Your task to perform on an android device: show emergency info Image 0: 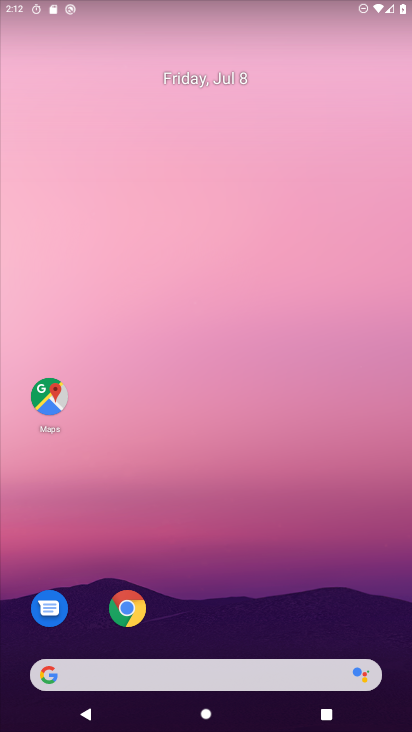
Step 0: drag from (241, 713) to (239, 661)
Your task to perform on an android device: show emergency info Image 1: 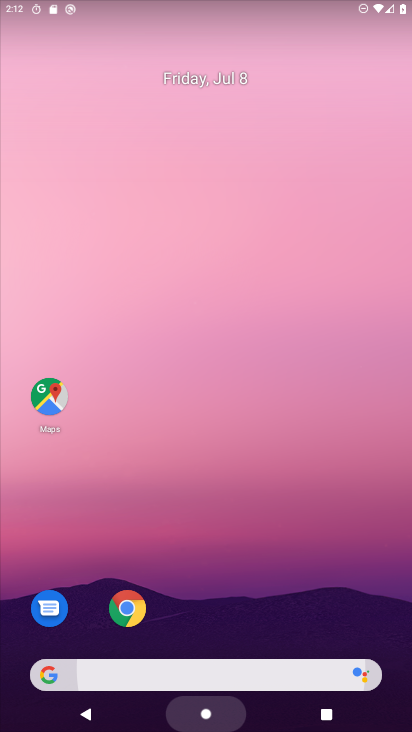
Step 1: drag from (239, 257) to (239, 89)
Your task to perform on an android device: show emergency info Image 2: 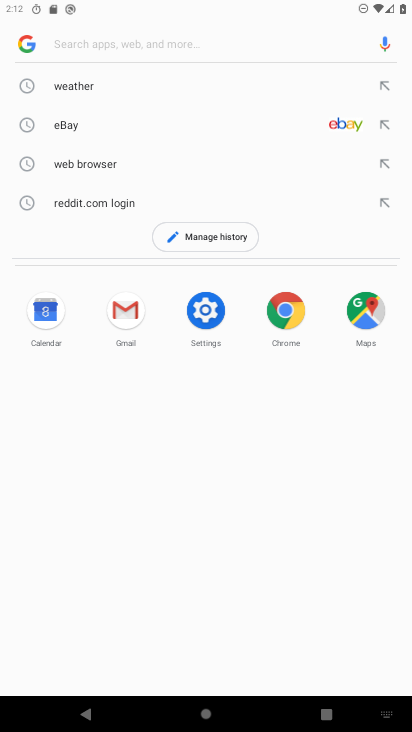
Step 2: press home button
Your task to perform on an android device: show emergency info Image 3: 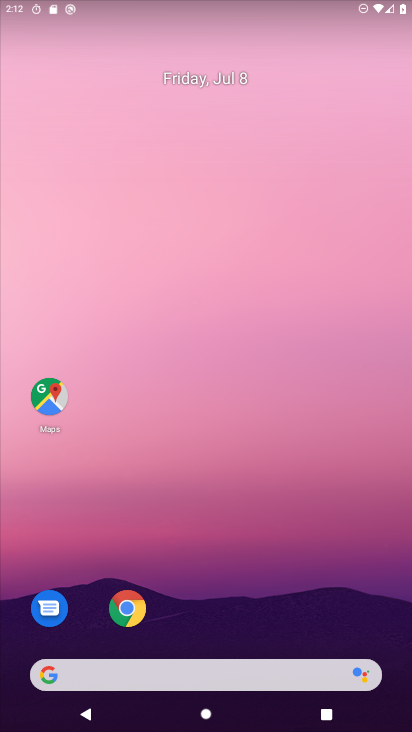
Step 3: drag from (267, 724) to (231, 197)
Your task to perform on an android device: show emergency info Image 4: 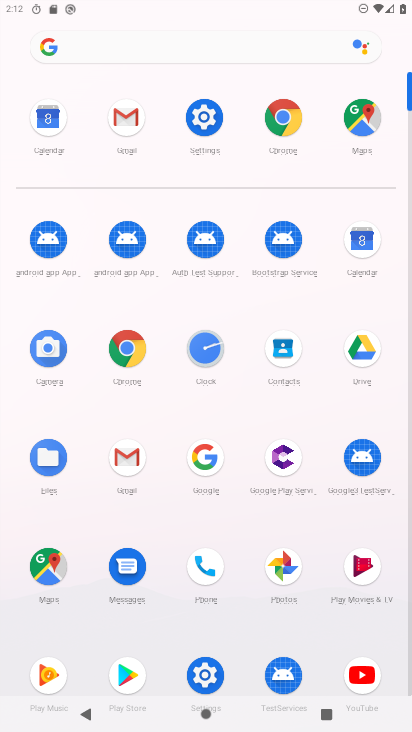
Step 4: click (215, 120)
Your task to perform on an android device: show emergency info Image 5: 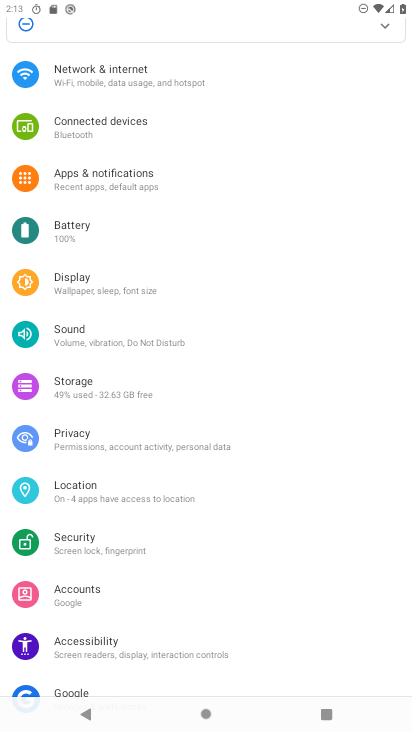
Step 5: drag from (158, 658) to (158, 241)
Your task to perform on an android device: show emergency info Image 6: 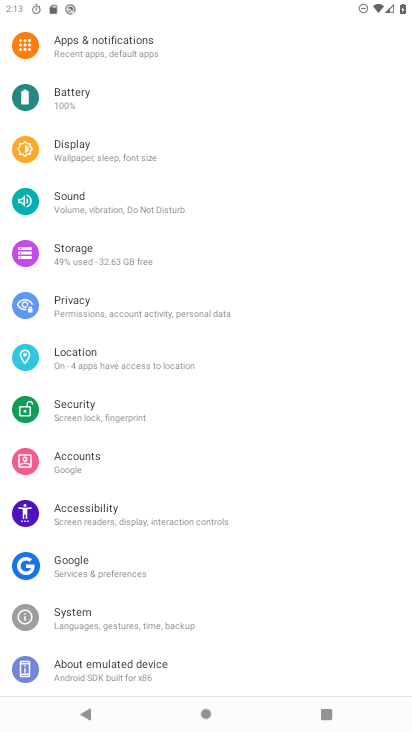
Step 6: click (111, 672)
Your task to perform on an android device: show emergency info Image 7: 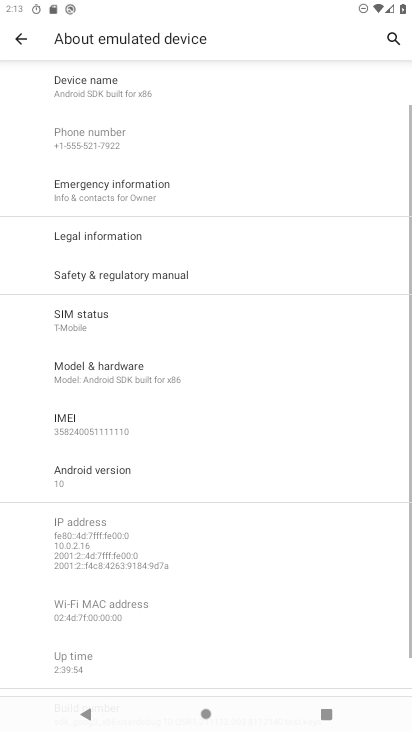
Step 7: click (96, 188)
Your task to perform on an android device: show emergency info Image 8: 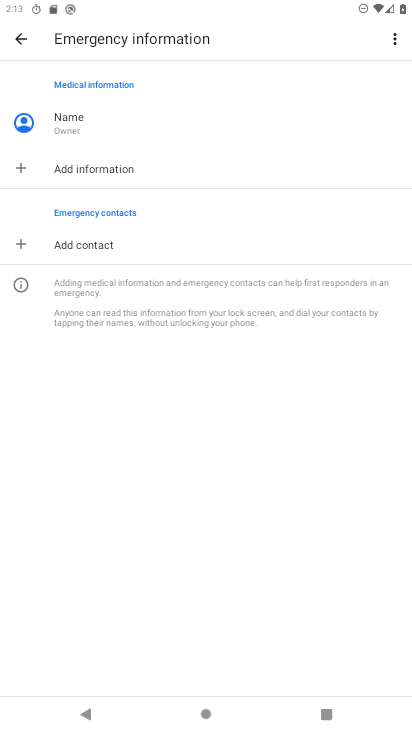
Step 8: task complete